Your task to perform on an android device: Open the map Image 0: 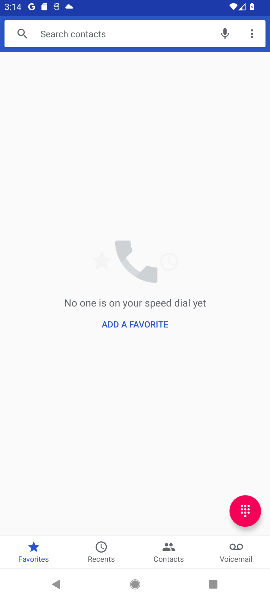
Step 0: press back button
Your task to perform on an android device: Open the map Image 1: 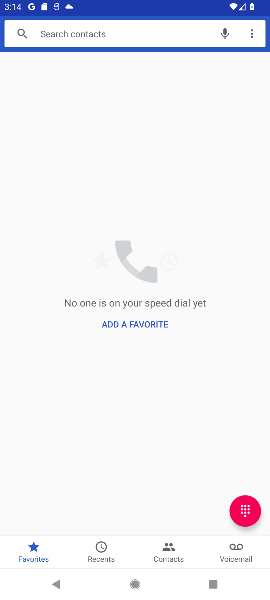
Step 1: press back button
Your task to perform on an android device: Open the map Image 2: 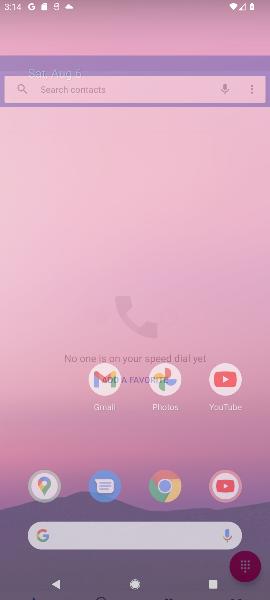
Step 2: press back button
Your task to perform on an android device: Open the map Image 3: 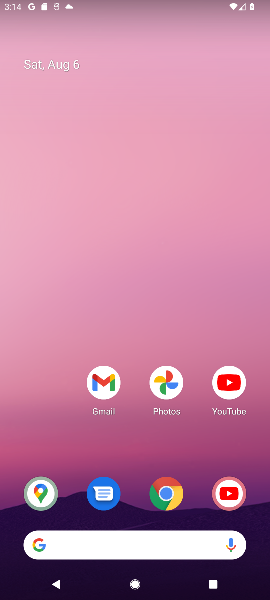
Step 3: drag from (185, 486) to (143, 71)
Your task to perform on an android device: Open the map Image 4: 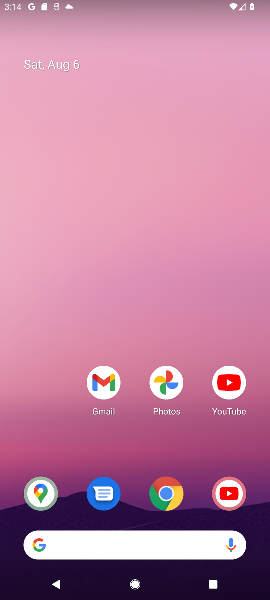
Step 4: drag from (174, 367) to (181, 21)
Your task to perform on an android device: Open the map Image 5: 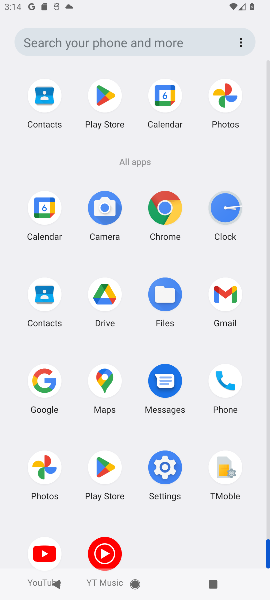
Step 5: click (99, 386)
Your task to perform on an android device: Open the map Image 6: 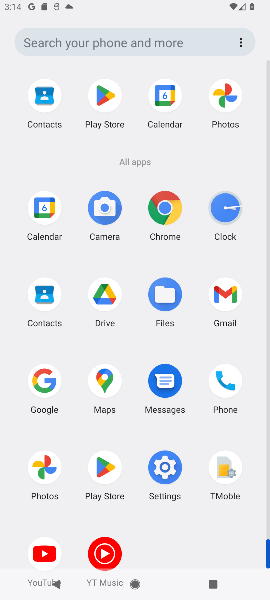
Step 6: click (99, 386)
Your task to perform on an android device: Open the map Image 7: 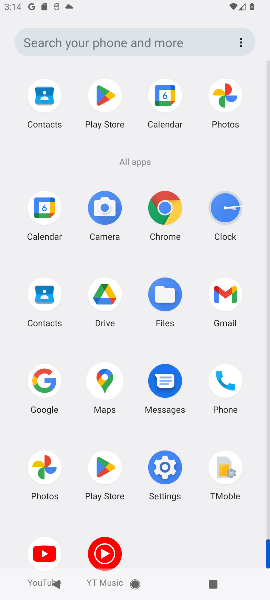
Step 7: click (99, 386)
Your task to perform on an android device: Open the map Image 8: 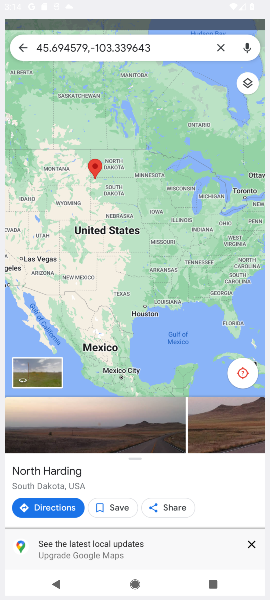
Step 8: click (100, 385)
Your task to perform on an android device: Open the map Image 9: 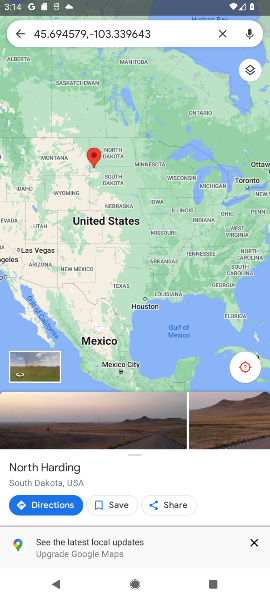
Step 9: click (100, 385)
Your task to perform on an android device: Open the map Image 10: 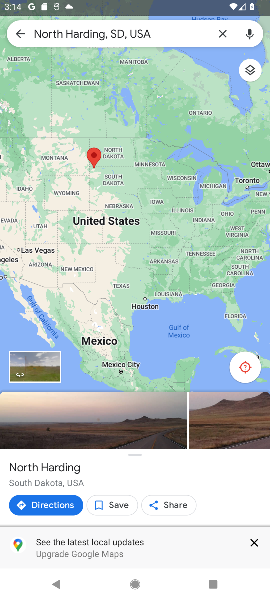
Step 10: task complete